Your task to perform on an android device: Open the calendar app, open the side menu, and click the "Day" option Image 0: 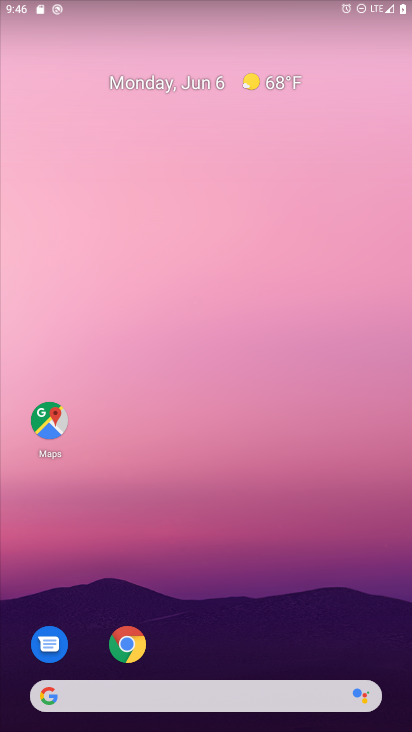
Step 0: press home button
Your task to perform on an android device: Open the calendar app, open the side menu, and click the "Day" option Image 1: 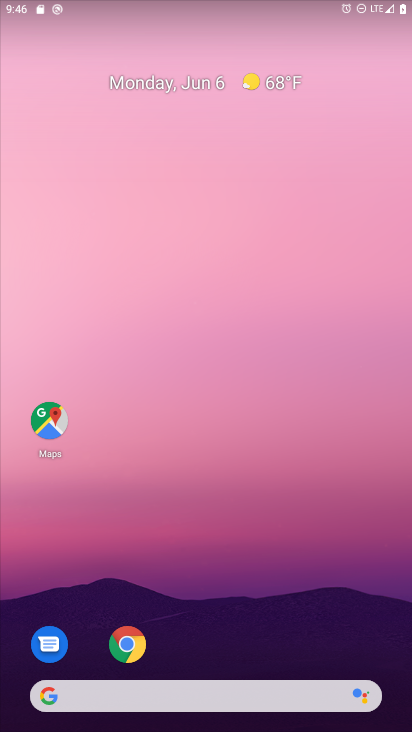
Step 1: drag from (277, 702) to (268, 165)
Your task to perform on an android device: Open the calendar app, open the side menu, and click the "Day" option Image 2: 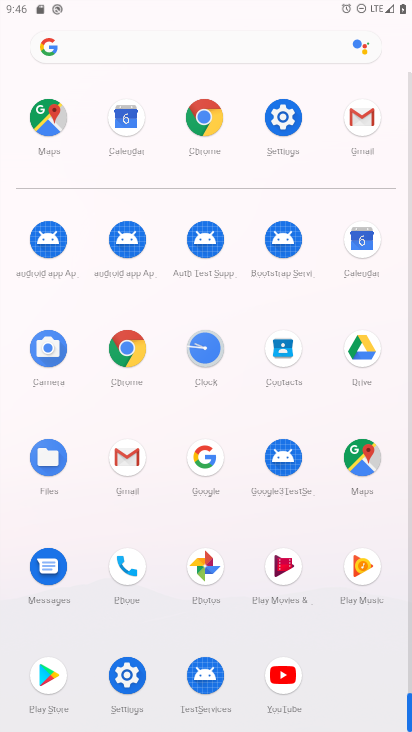
Step 2: click (123, 117)
Your task to perform on an android device: Open the calendar app, open the side menu, and click the "Day" option Image 3: 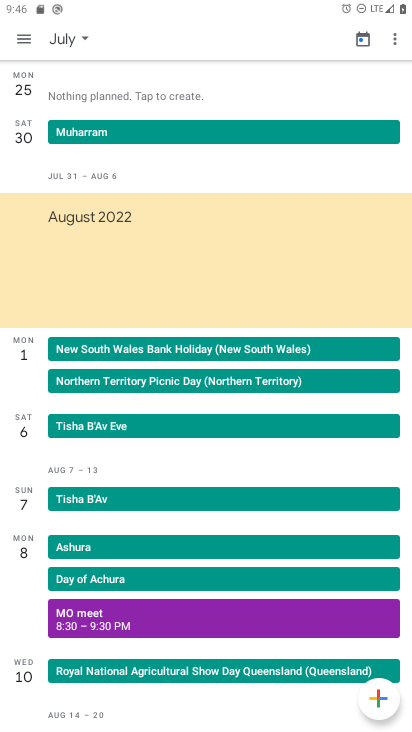
Step 3: click (29, 39)
Your task to perform on an android device: Open the calendar app, open the side menu, and click the "Day" option Image 4: 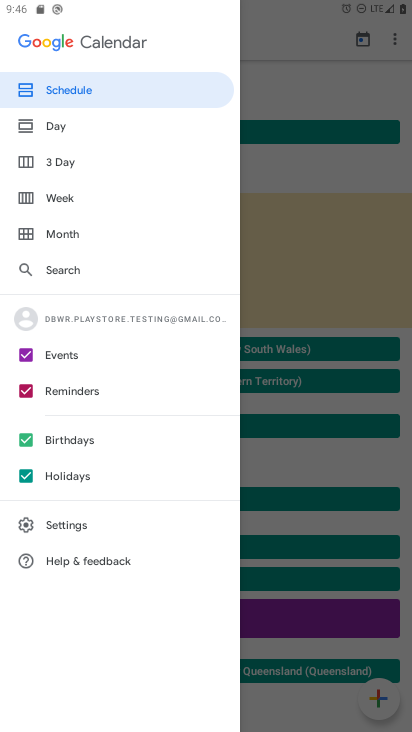
Step 4: click (73, 127)
Your task to perform on an android device: Open the calendar app, open the side menu, and click the "Day" option Image 5: 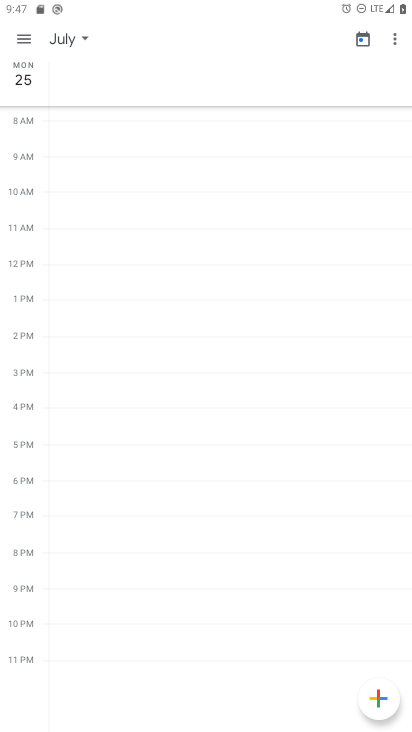
Step 5: task complete